Your task to perform on an android device: turn off location history Image 0: 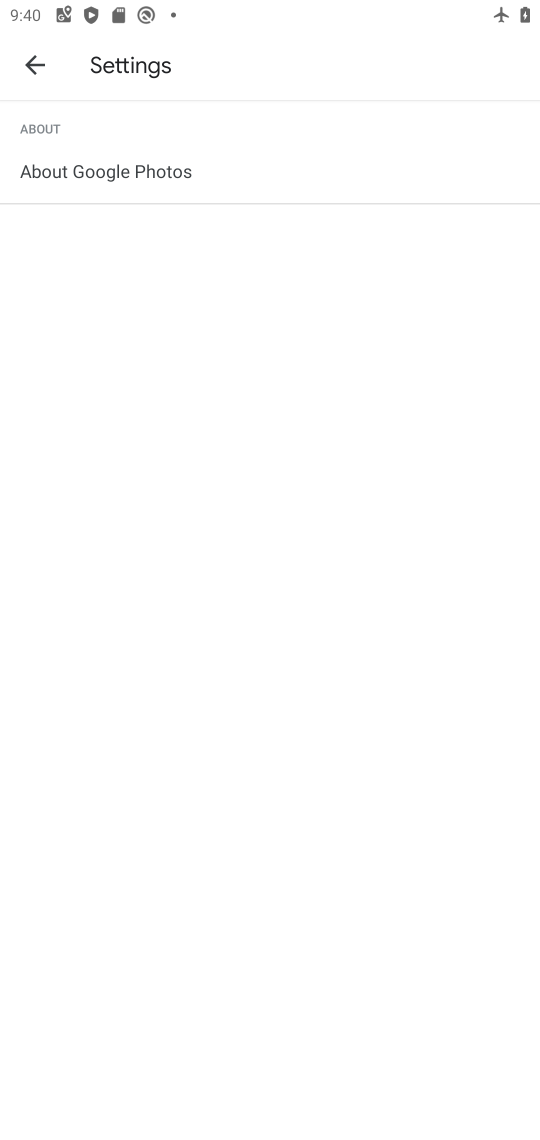
Step 0: press home button
Your task to perform on an android device: turn off location history Image 1: 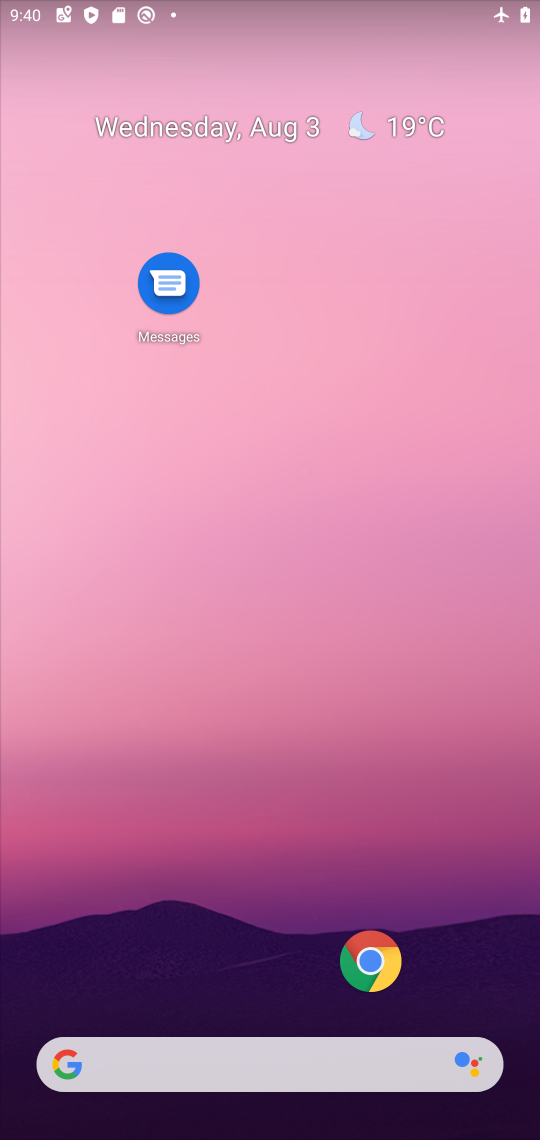
Step 1: drag from (208, 1028) to (92, 132)
Your task to perform on an android device: turn off location history Image 2: 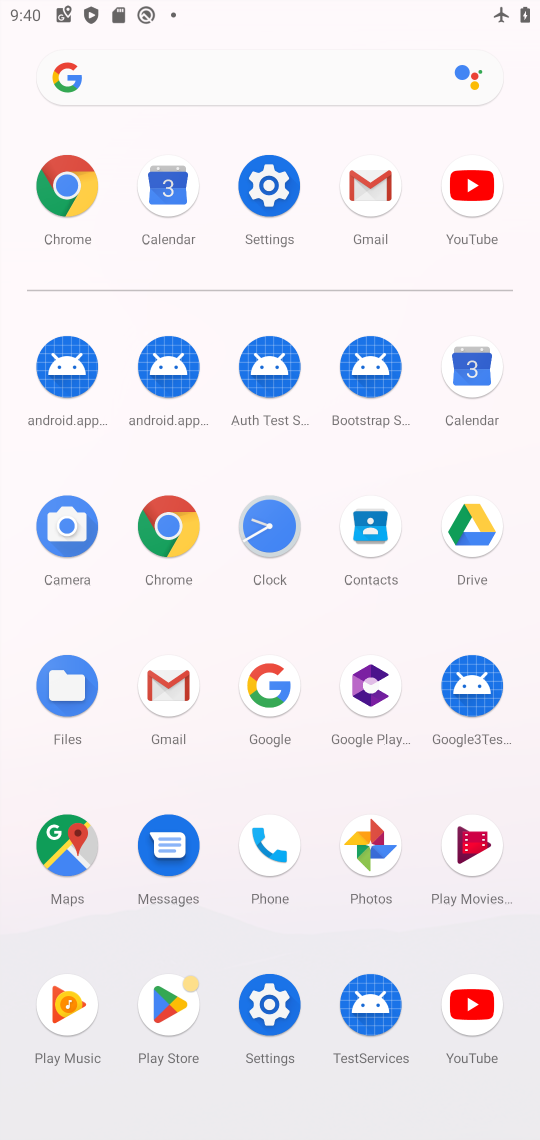
Step 2: click (284, 1006)
Your task to perform on an android device: turn off location history Image 3: 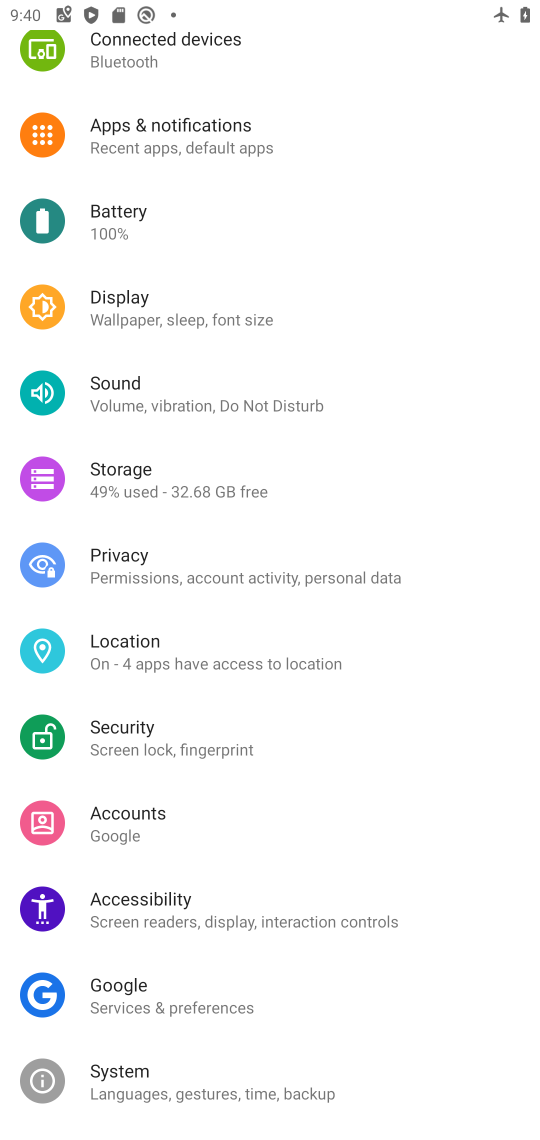
Step 3: click (157, 665)
Your task to perform on an android device: turn off location history Image 4: 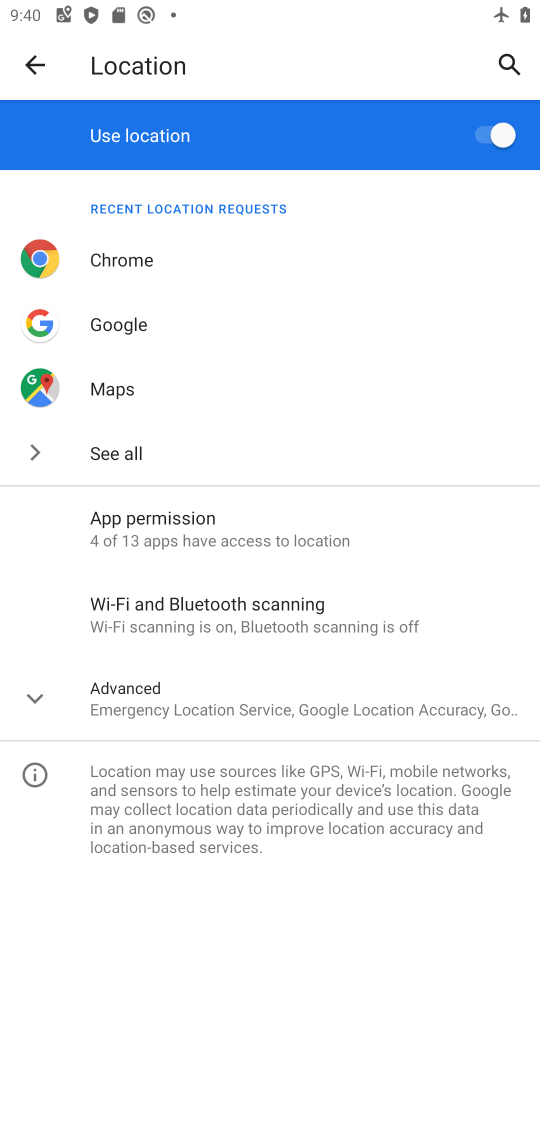
Step 4: click (192, 702)
Your task to perform on an android device: turn off location history Image 5: 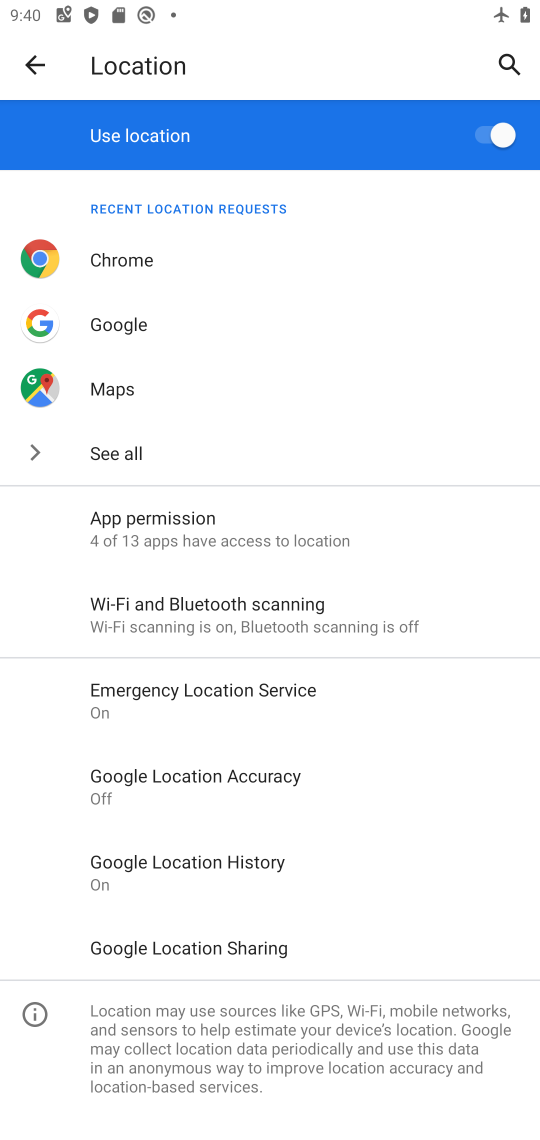
Step 5: click (254, 872)
Your task to perform on an android device: turn off location history Image 6: 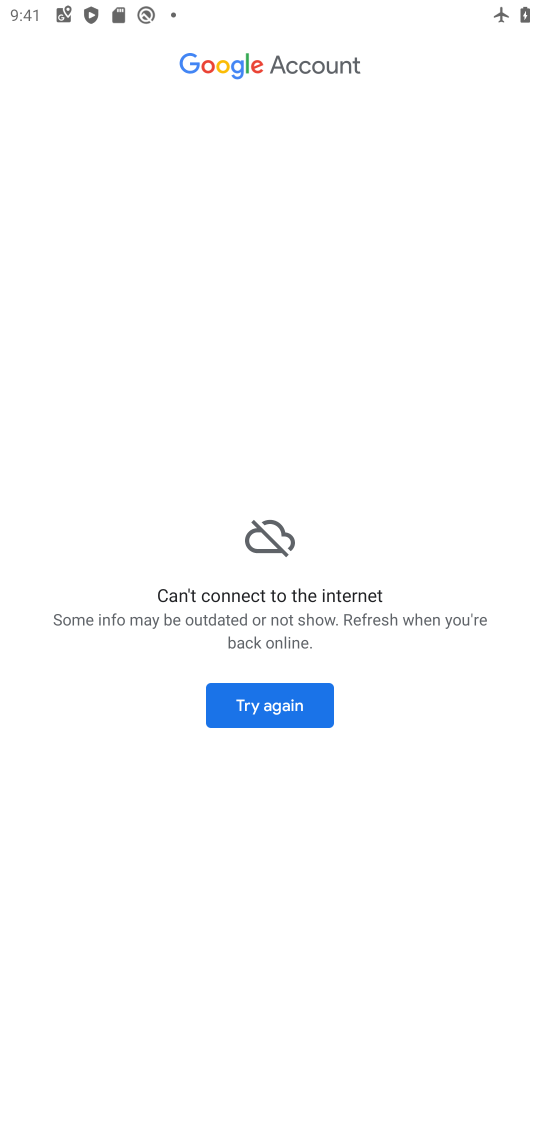
Step 6: click (286, 715)
Your task to perform on an android device: turn off location history Image 7: 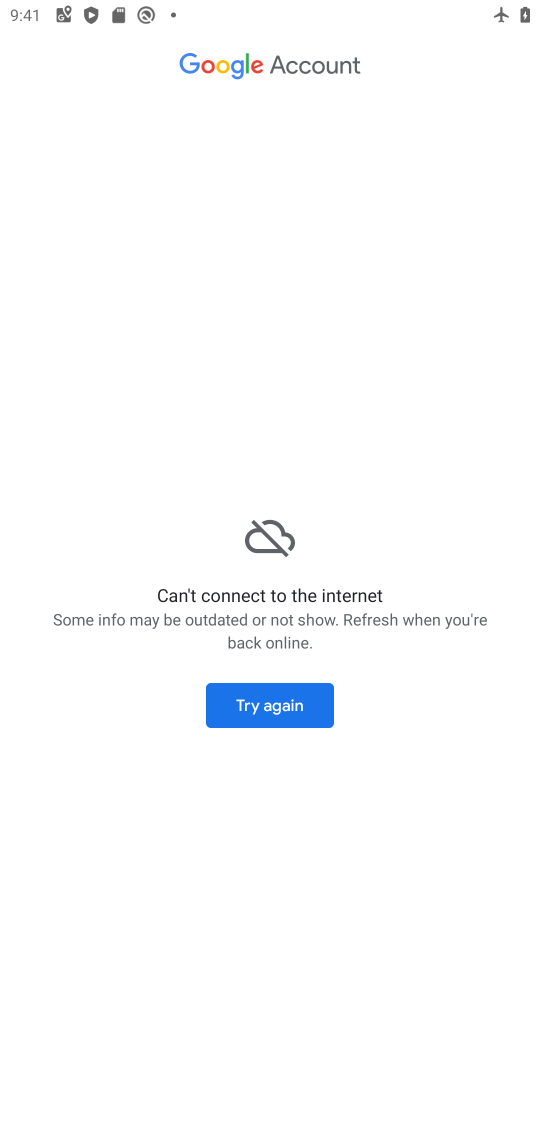
Step 7: task complete